Your task to perform on an android device: change the clock display to analog Image 0: 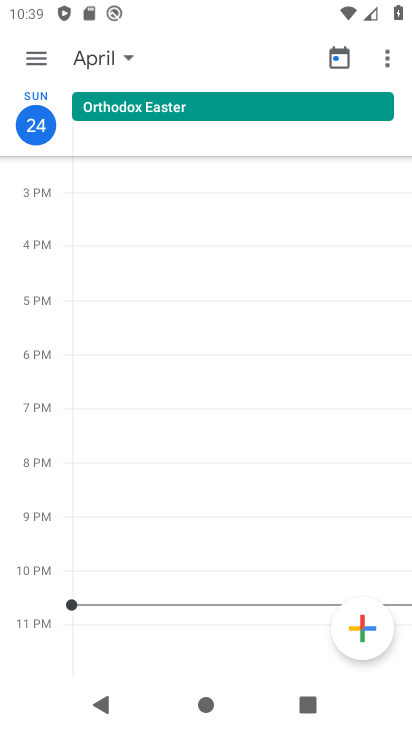
Step 0: press home button
Your task to perform on an android device: change the clock display to analog Image 1: 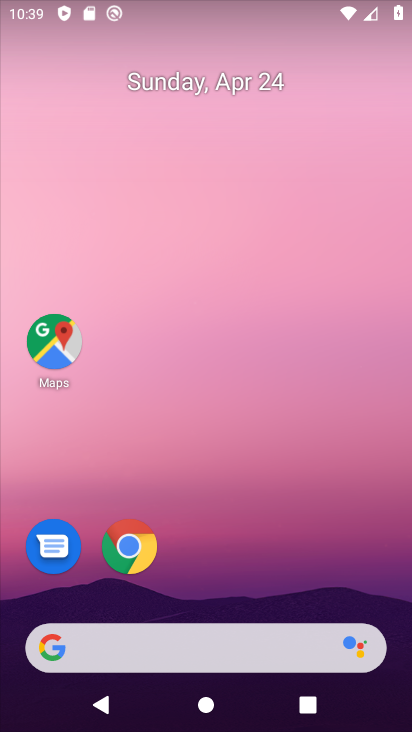
Step 1: drag from (171, 500) to (181, 105)
Your task to perform on an android device: change the clock display to analog Image 2: 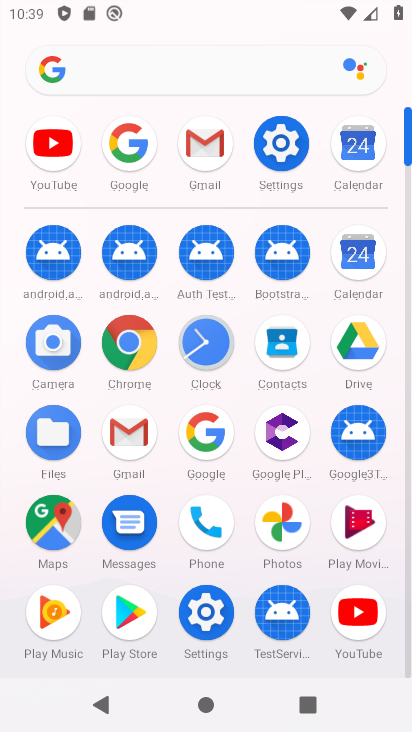
Step 2: click (206, 365)
Your task to perform on an android device: change the clock display to analog Image 3: 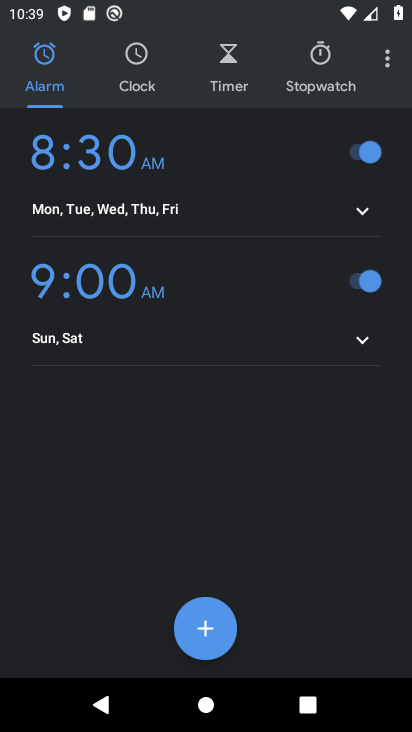
Step 3: click (391, 67)
Your task to perform on an android device: change the clock display to analog Image 4: 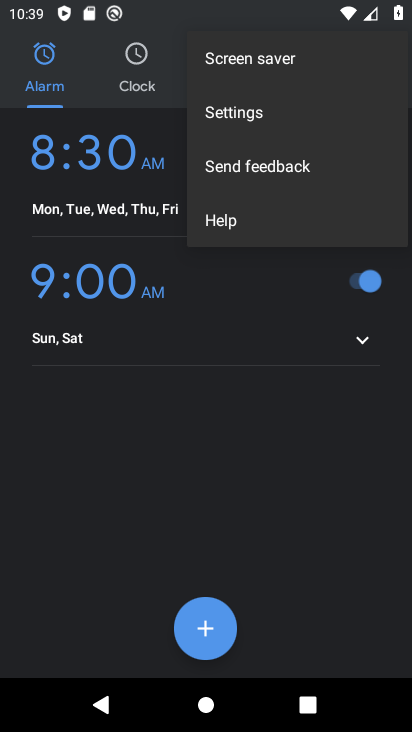
Step 4: click (247, 95)
Your task to perform on an android device: change the clock display to analog Image 5: 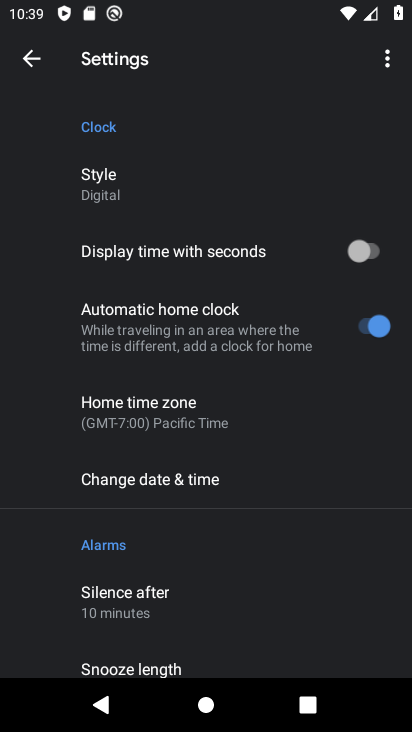
Step 5: click (139, 191)
Your task to perform on an android device: change the clock display to analog Image 6: 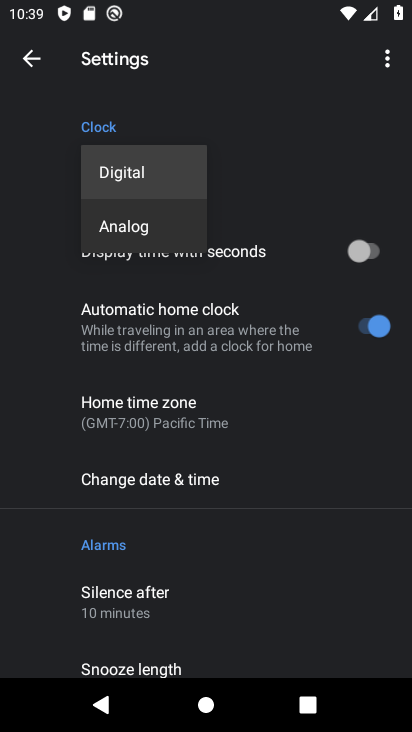
Step 6: click (155, 223)
Your task to perform on an android device: change the clock display to analog Image 7: 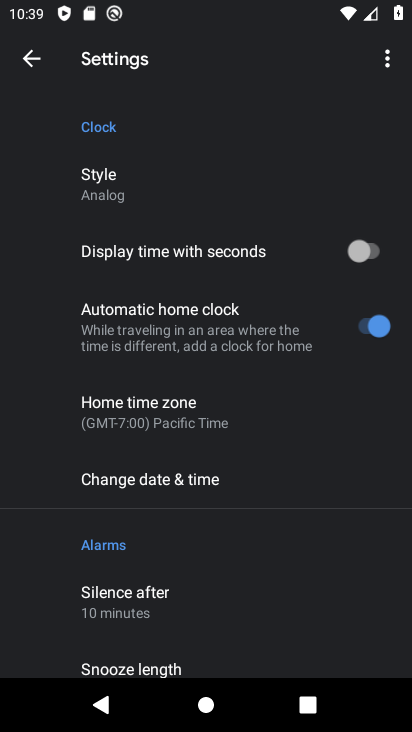
Step 7: task complete